Your task to perform on an android device: Is it going to rain tomorrow? Image 0: 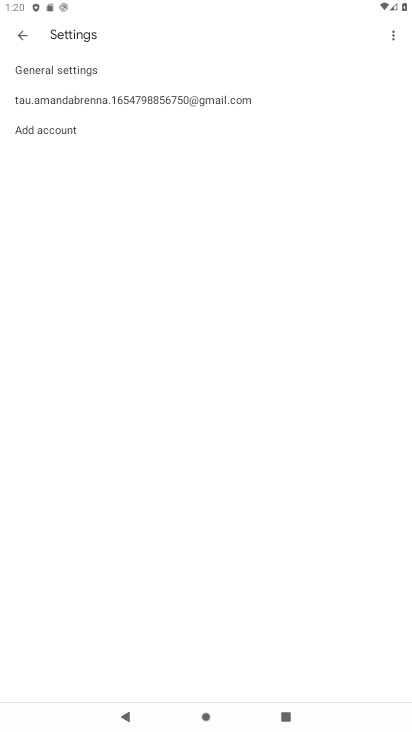
Step 0: press home button
Your task to perform on an android device: Is it going to rain tomorrow? Image 1: 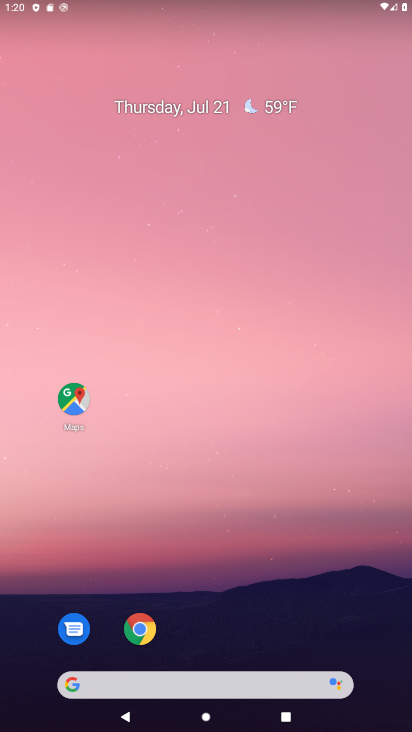
Step 1: click (145, 683)
Your task to perform on an android device: Is it going to rain tomorrow? Image 2: 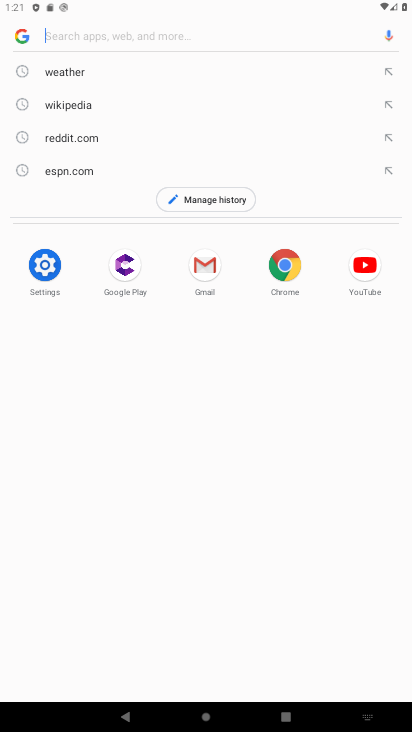
Step 2: type "is it going to rain tomorrow?"
Your task to perform on an android device: Is it going to rain tomorrow? Image 3: 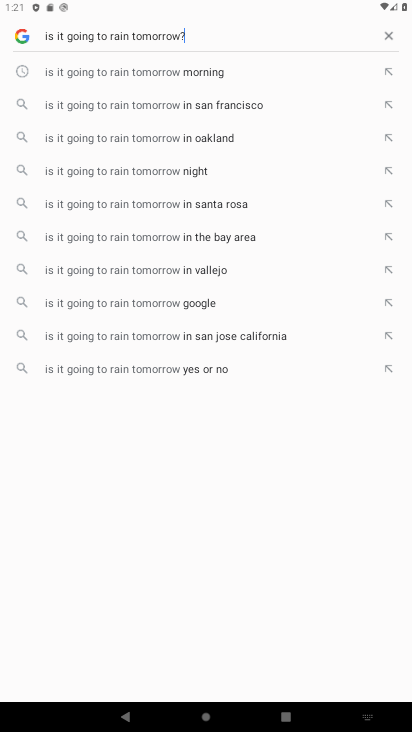
Step 3: click (136, 305)
Your task to perform on an android device: Is it going to rain tomorrow? Image 4: 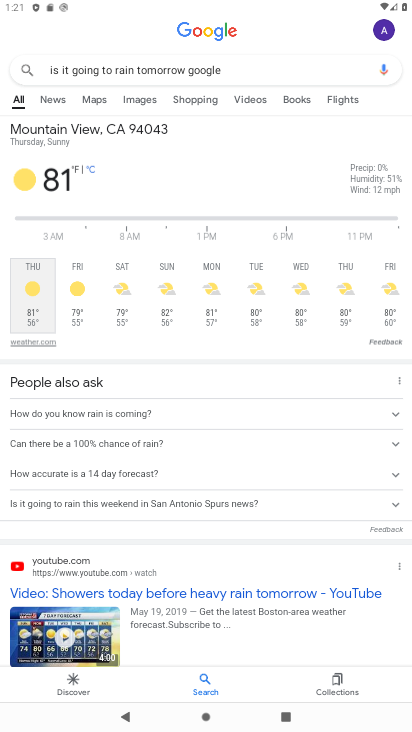
Step 4: task complete